Your task to perform on an android device: open app "LiveIn - Share Your Moment" (install if not already installed) and enter user name: "certifies@gmail.com" and password: "compartmented" Image 0: 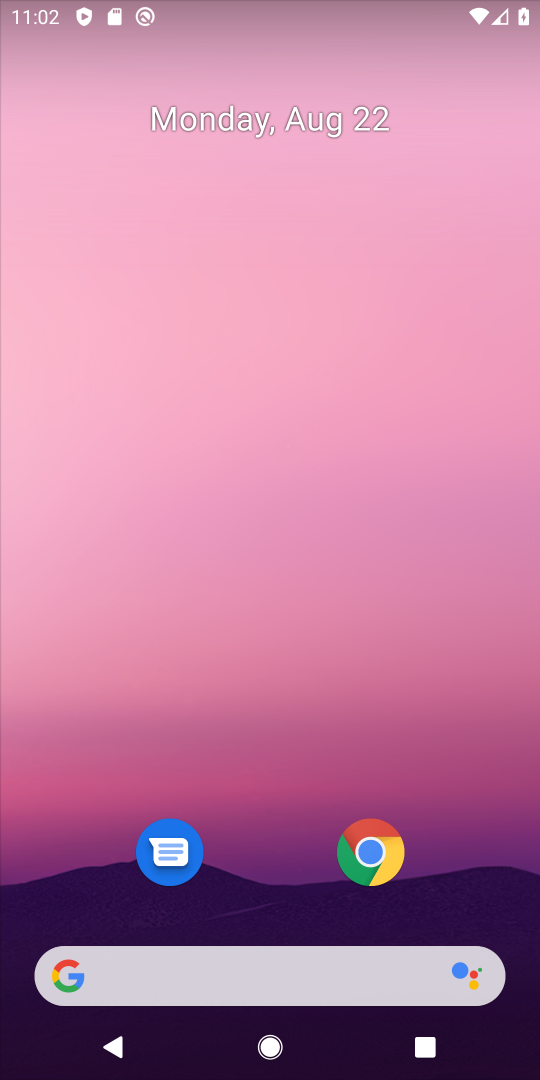
Step 0: drag from (250, 691) to (310, 0)
Your task to perform on an android device: open app "LiveIn - Share Your Moment" (install if not already installed) and enter user name: "certifies@gmail.com" and password: "compartmented" Image 1: 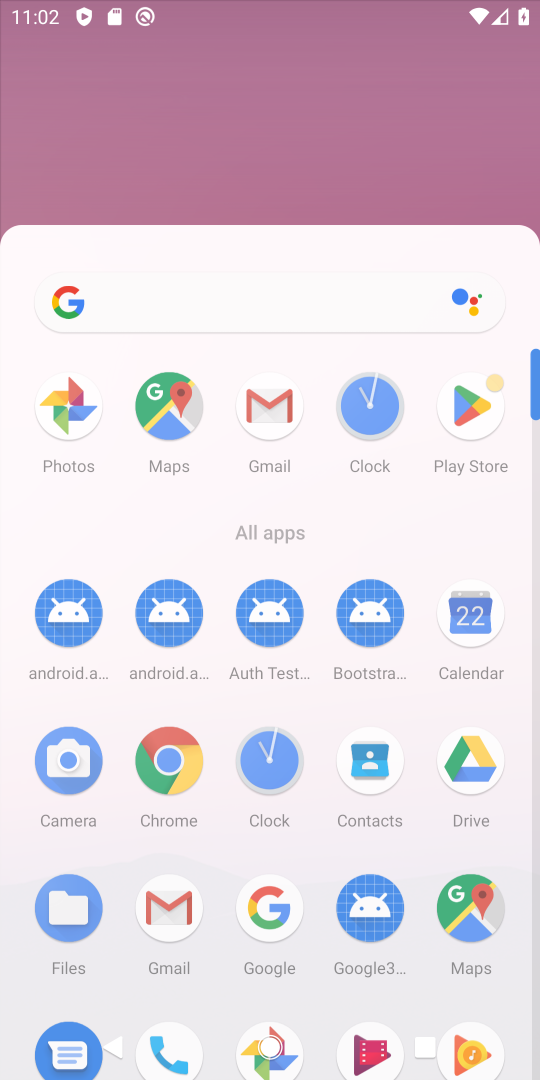
Step 1: click (474, 403)
Your task to perform on an android device: open app "LiveIn - Share Your Moment" (install if not already installed) and enter user name: "certifies@gmail.com" and password: "compartmented" Image 2: 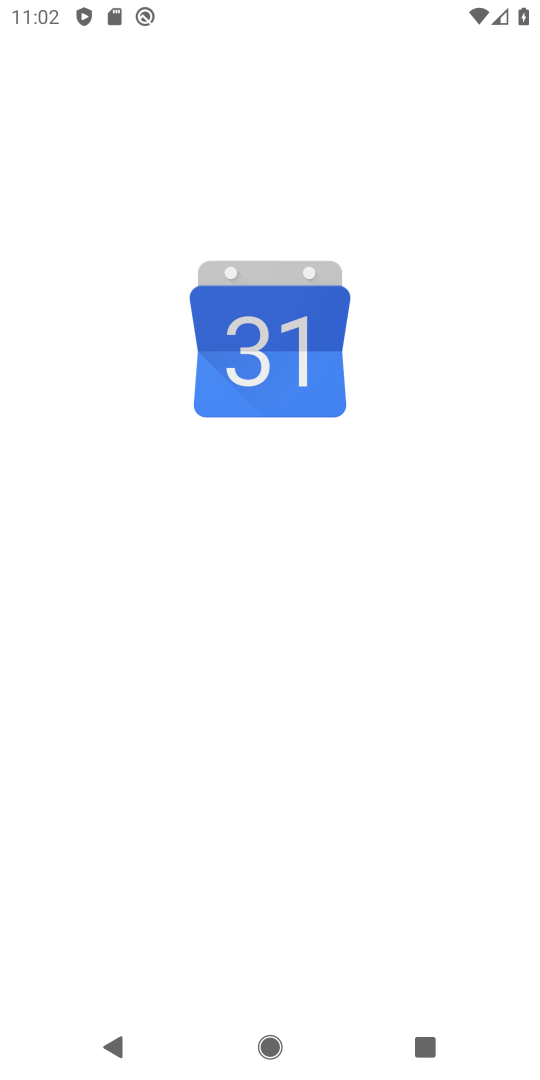
Step 2: click (467, 170)
Your task to perform on an android device: open app "LiveIn - Share Your Moment" (install if not already installed) and enter user name: "certifies@gmail.com" and password: "compartmented" Image 3: 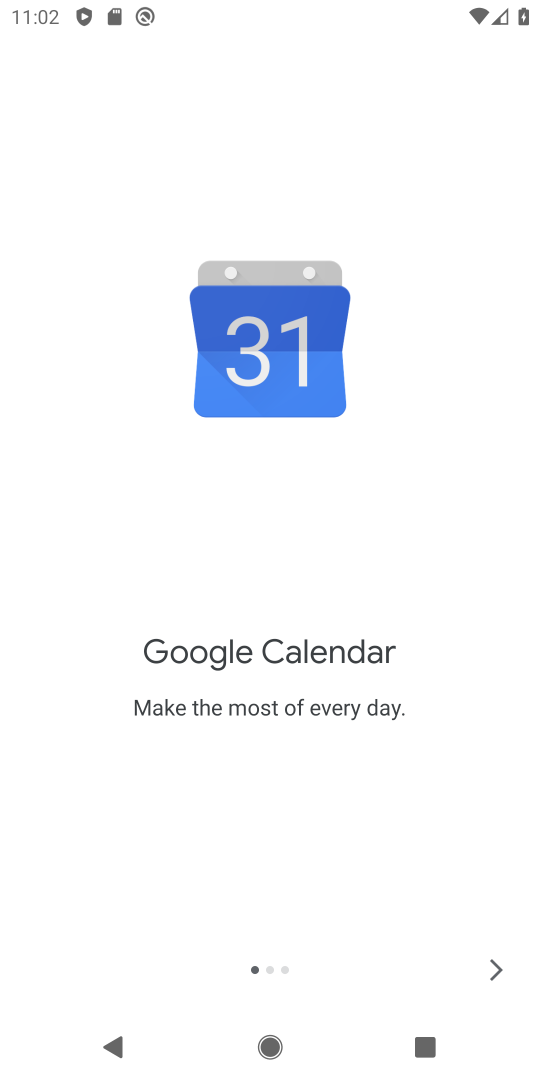
Step 3: press home button
Your task to perform on an android device: open app "LiveIn - Share Your Moment" (install if not already installed) and enter user name: "certifies@gmail.com" and password: "compartmented" Image 4: 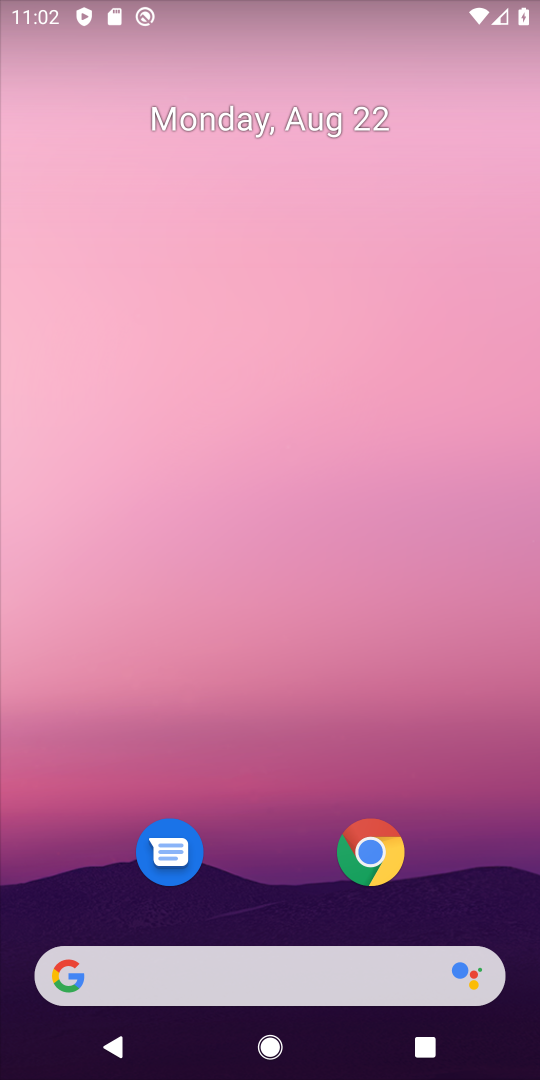
Step 4: drag from (267, 843) to (467, 13)
Your task to perform on an android device: open app "LiveIn - Share Your Moment" (install if not already installed) and enter user name: "certifies@gmail.com" and password: "compartmented" Image 5: 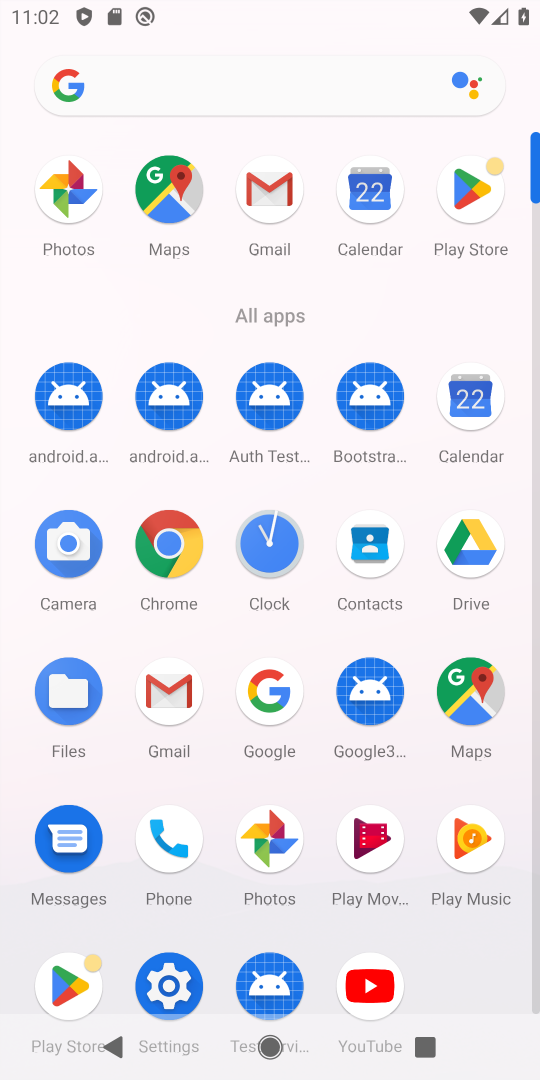
Step 5: click (462, 209)
Your task to perform on an android device: open app "LiveIn - Share Your Moment" (install if not already installed) and enter user name: "certifies@gmail.com" and password: "compartmented" Image 6: 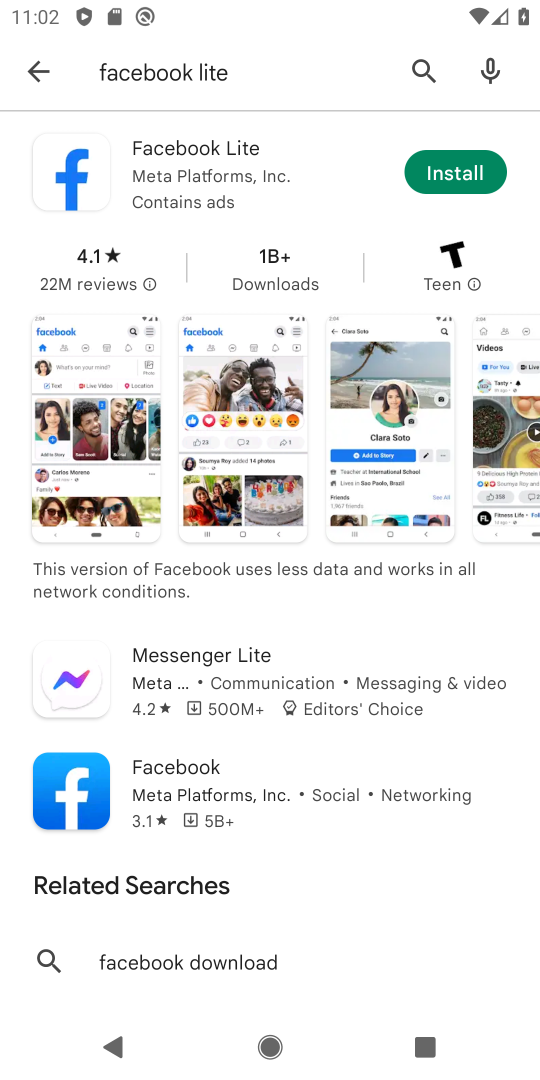
Step 6: click (210, 49)
Your task to perform on an android device: open app "LiveIn - Share Your Moment" (install if not already installed) and enter user name: "certifies@gmail.com" and password: "compartmented" Image 7: 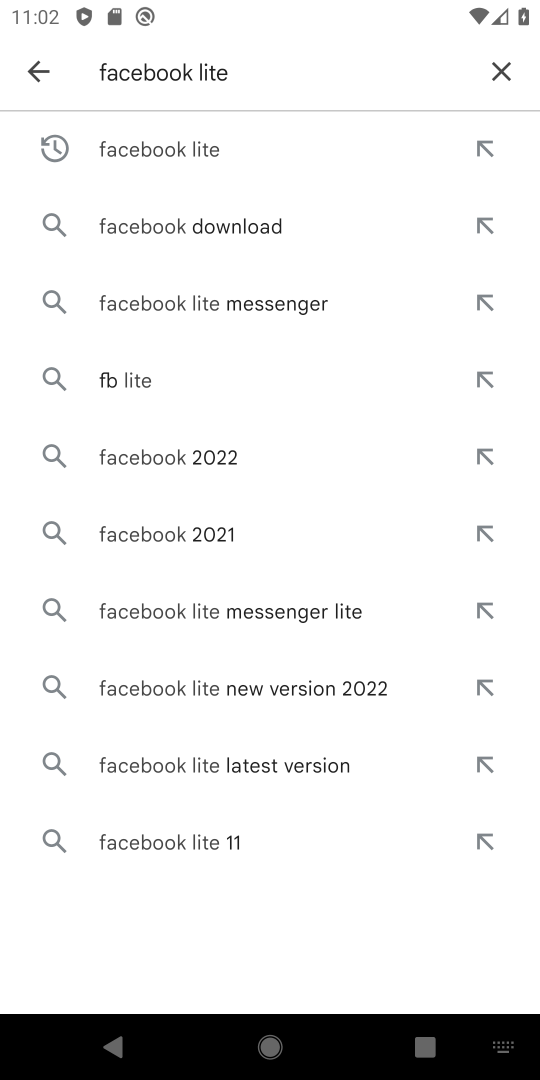
Step 7: click (502, 69)
Your task to perform on an android device: open app "LiveIn - Share Your Moment" (install if not already installed) and enter user name: "certifies@gmail.com" and password: "compartmented" Image 8: 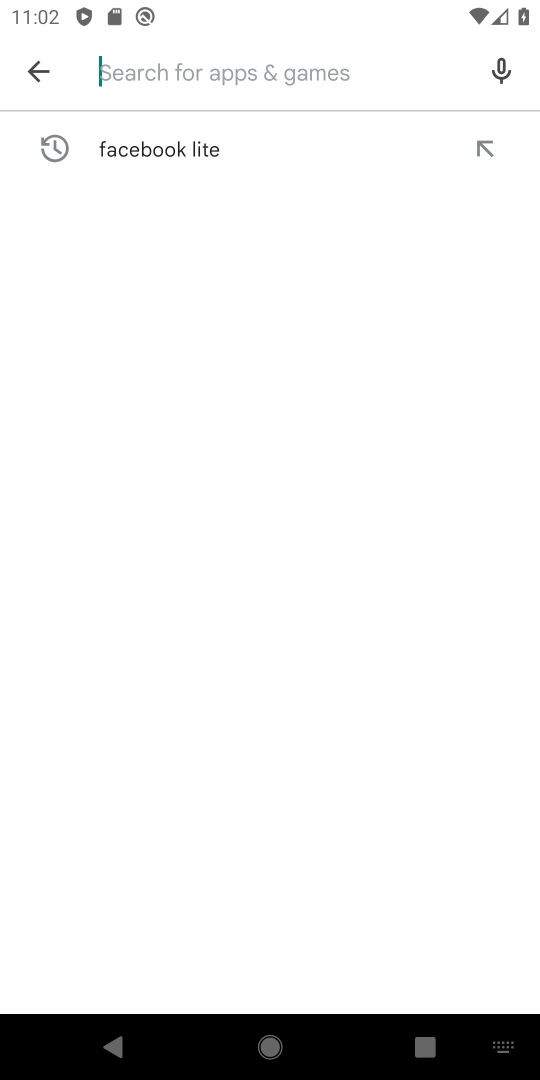
Step 8: type "liveIn"
Your task to perform on an android device: open app "LiveIn - Share Your Moment" (install if not already installed) and enter user name: "certifies@gmail.com" and password: "compartmented" Image 9: 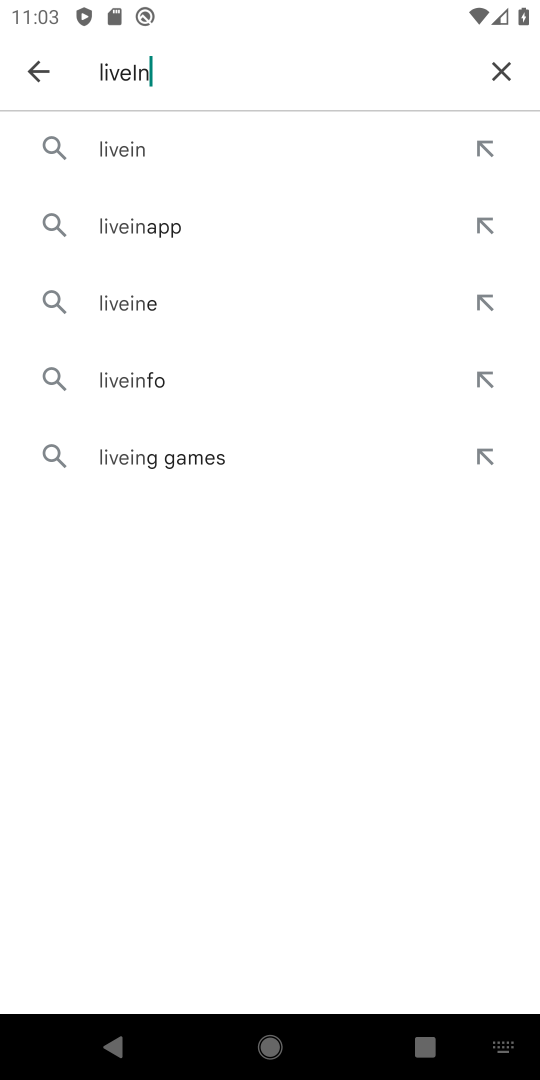
Step 9: click (137, 158)
Your task to perform on an android device: open app "LiveIn - Share Your Moment" (install if not already installed) and enter user name: "certifies@gmail.com" and password: "compartmented" Image 10: 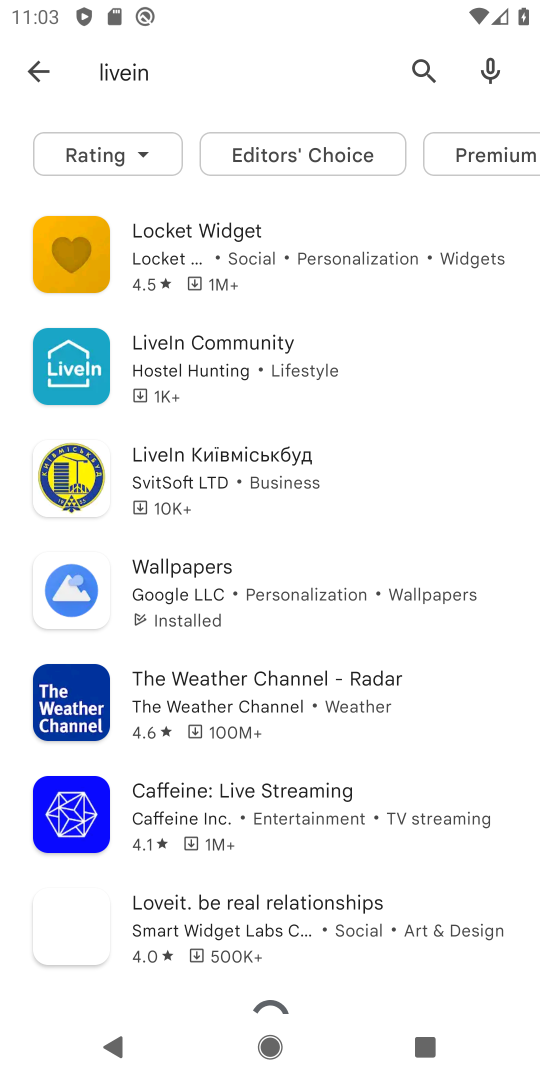
Step 10: task complete